Your task to perform on an android device: What's the weather going to be tomorrow? Image 0: 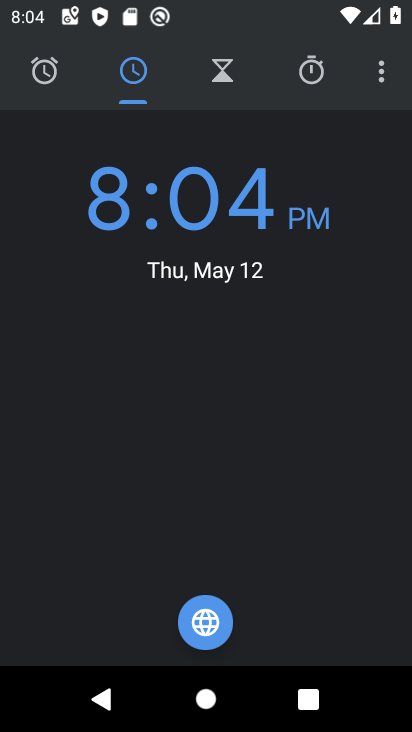
Step 0: press home button
Your task to perform on an android device: What's the weather going to be tomorrow? Image 1: 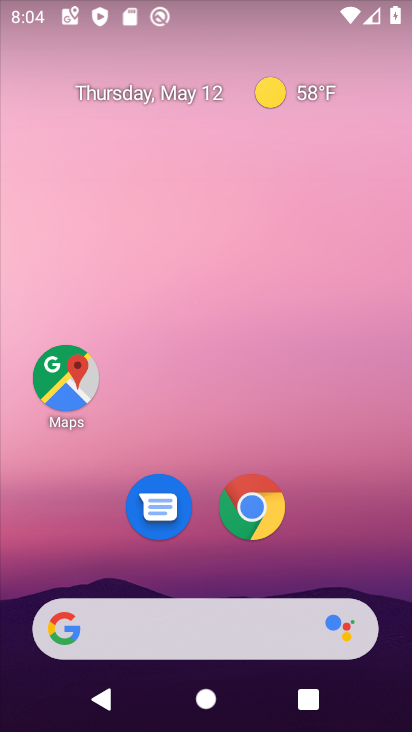
Step 1: drag from (182, 539) to (191, 186)
Your task to perform on an android device: What's the weather going to be tomorrow? Image 2: 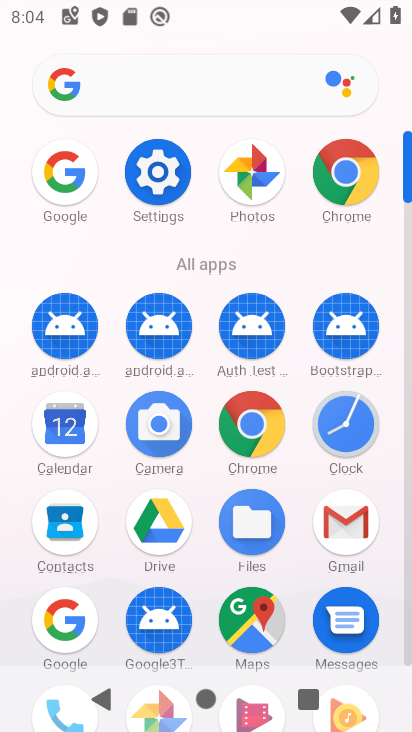
Step 2: click (65, 610)
Your task to perform on an android device: What's the weather going to be tomorrow? Image 3: 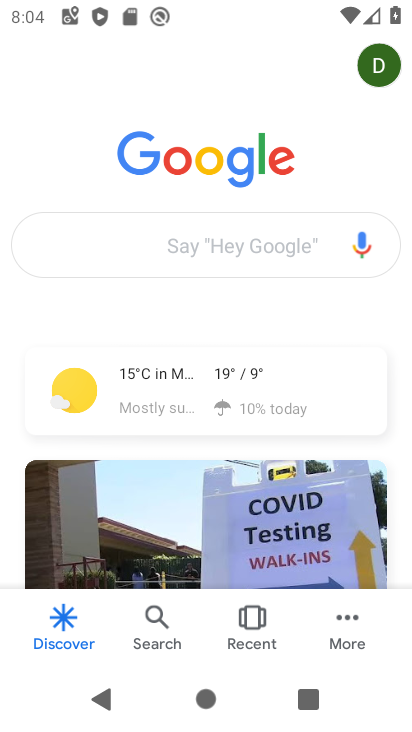
Step 3: click (136, 408)
Your task to perform on an android device: What's the weather going to be tomorrow? Image 4: 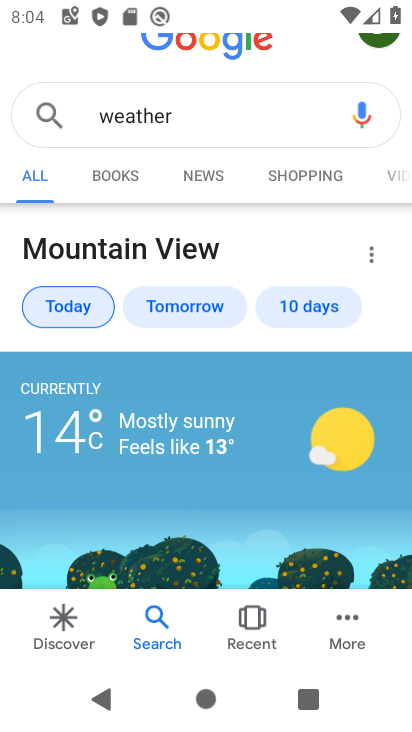
Step 4: click (184, 292)
Your task to perform on an android device: What's the weather going to be tomorrow? Image 5: 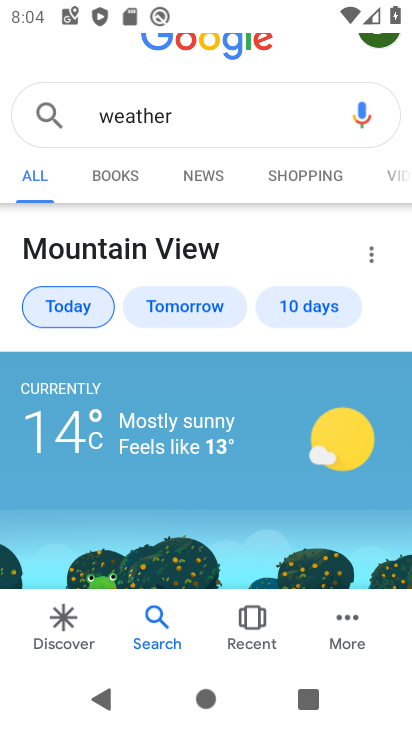
Step 5: click (189, 299)
Your task to perform on an android device: What's the weather going to be tomorrow? Image 6: 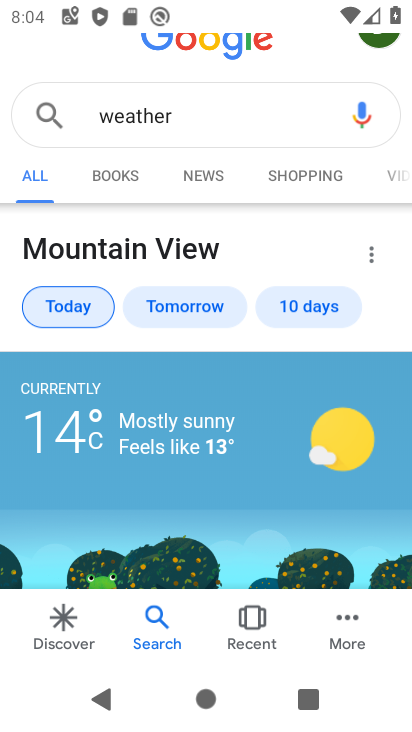
Step 6: click (190, 301)
Your task to perform on an android device: What's the weather going to be tomorrow? Image 7: 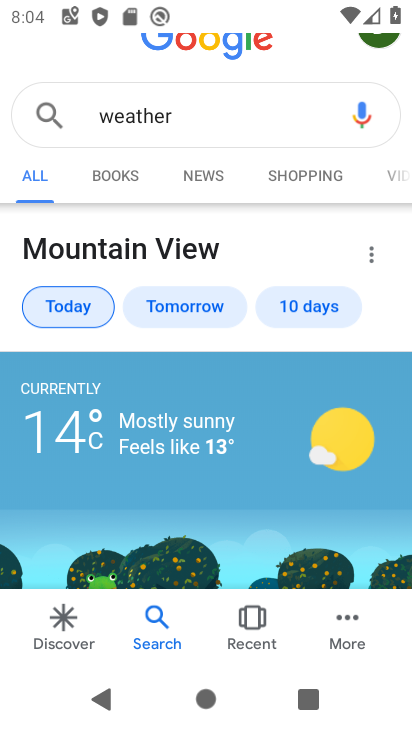
Step 7: click (190, 301)
Your task to perform on an android device: What's the weather going to be tomorrow? Image 8: 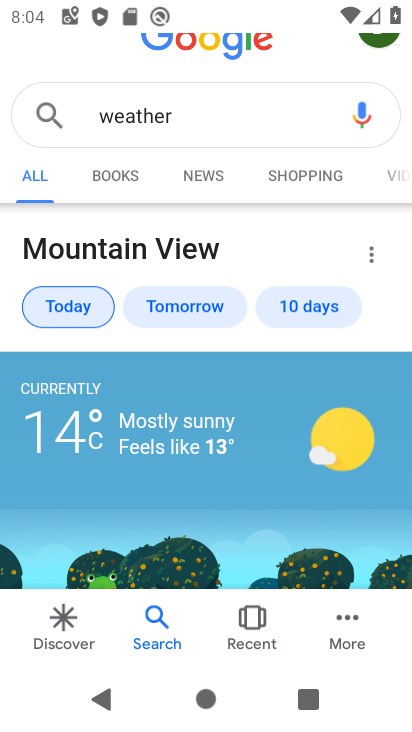
Step 8: click (190, 301)
Your task to perform on an android device: What's the weather going to be tomorrow? Image 9: 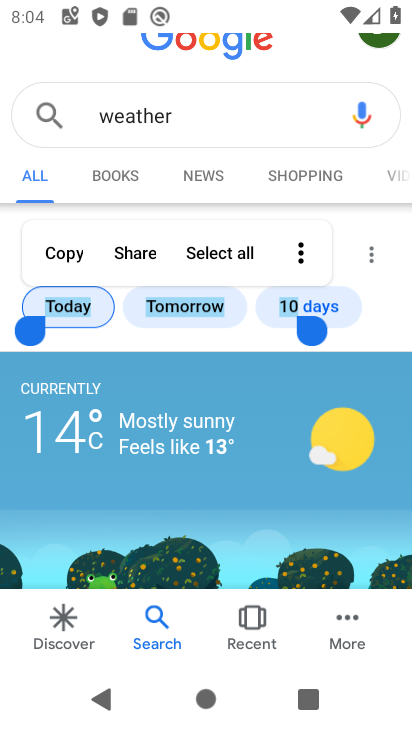
Step 9: click (190, 301)
Your task to perform on an android device: What's the weather going to be tomorrow? Image 10: 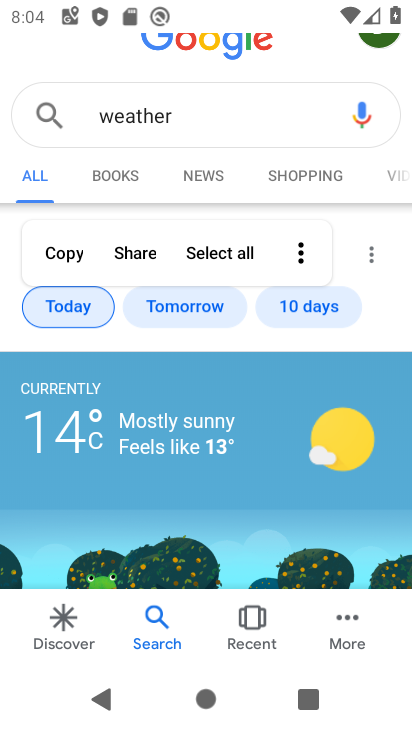
Step 10: click (190, 301)
Your task to perform on an android device: What's the weather going to be tomorrow? Image 11: 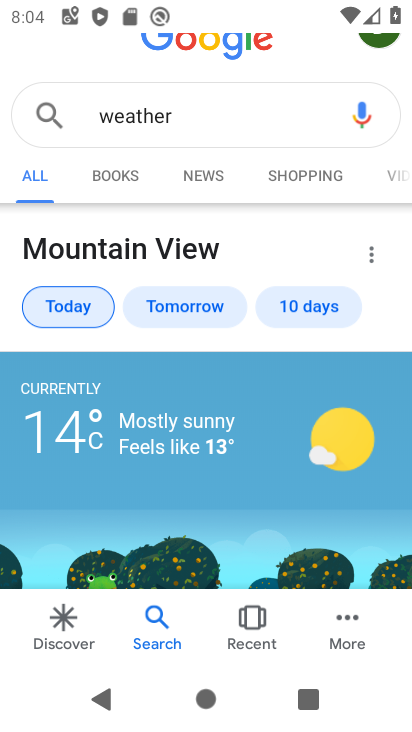
Step 11: click (228, 308)
Your task to perform on an android device: What's the weather going to be tomorrow? Image 12: 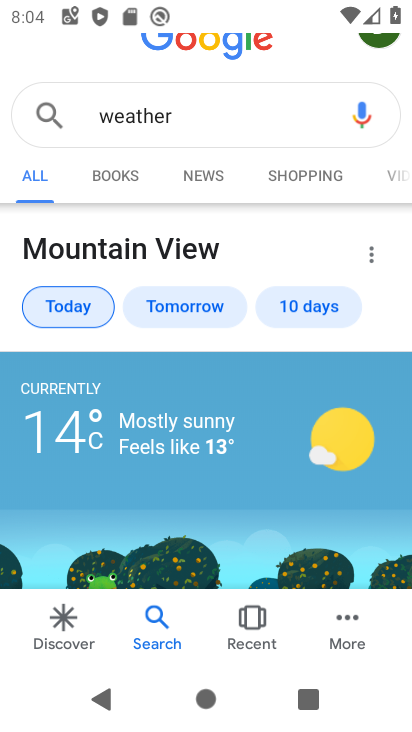
Step 12: drag from (213, 462) to (204, 297)
Your task to perform on an android device: What's the weather going to be tomorrow? Image 13: 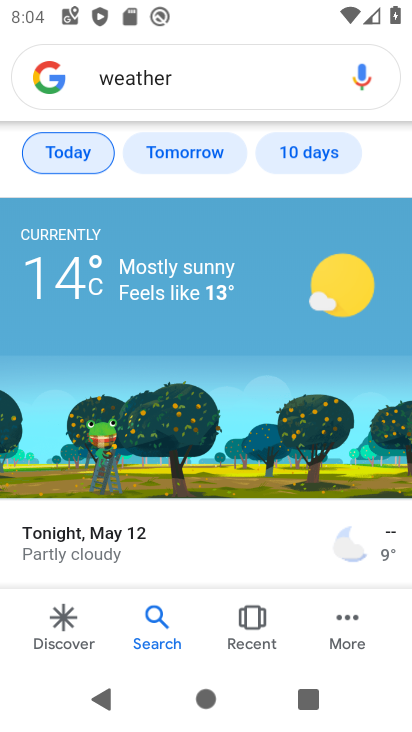
Step 13: click (198, 149)
Your task to perform on an android device: What's the weather going to be tomorrow? Image 14: 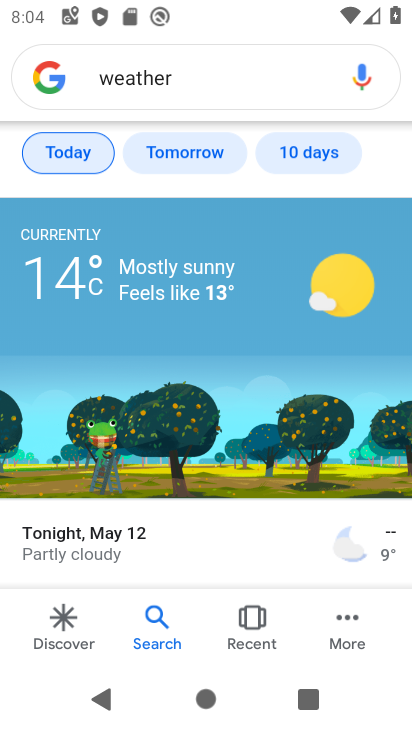
Step 14: task complete